Your task to perform on an android device: toggle javascript in the chrome app Image 0: 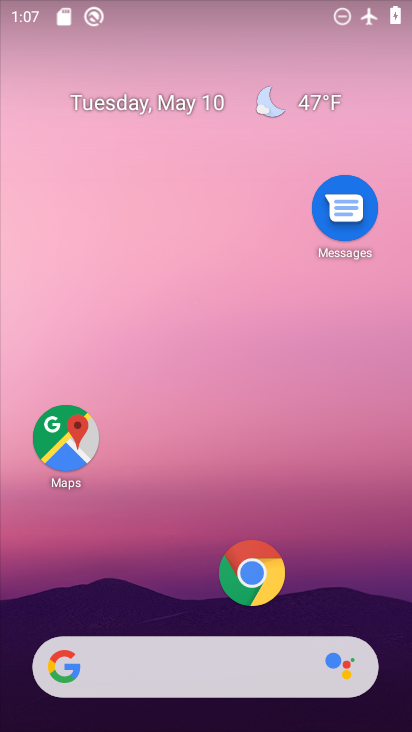
Step 0: drag from (176, 618) to (192, 294)
Your task to perform on an android device: toggle javascript in the chrome app Image 1: 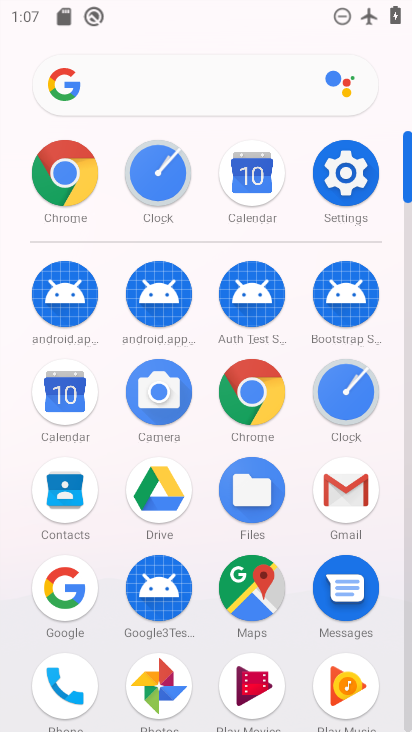
Step 1: click (257, 397)
Your task to perform on an android device: toggle javascript in the chrome app Image 2: 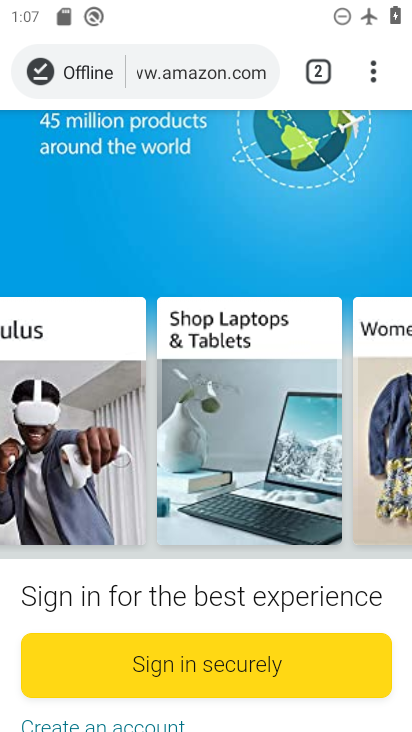
Step 2: drag from (200, 624) to (263, 256)
Your task to perform on an android device: toggle javascript in the chrome app Image 3: 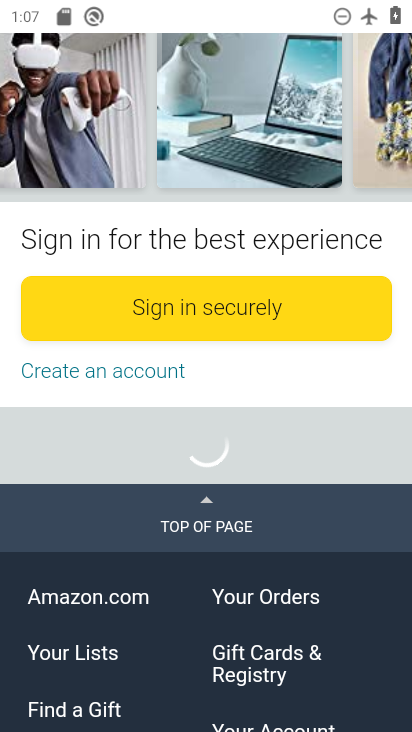
Step 3: drag from (210, 237) to (211, 730)
Your task to perform on an android device: toggle javascript in the chrome app Image 4: 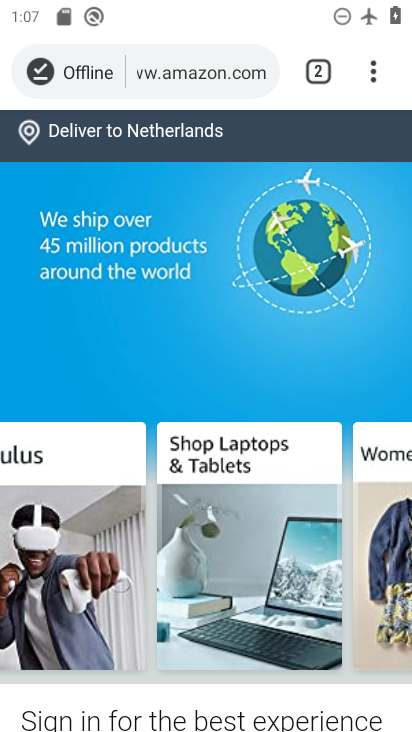
Step 4: drag from (369, 77) to (137, 560)
Your task to perform on an android device: toggle javascript in the chrome app Image 5: 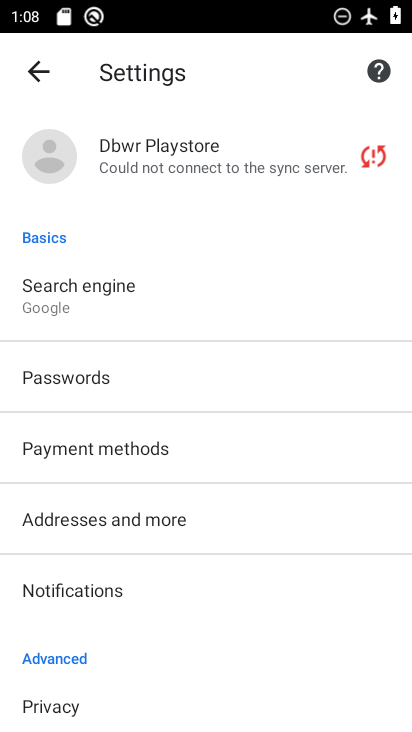
Step 5: drag from (173, 568) to (229, 287)
Your task to perform on an android device: toggle javascript in the chrome app Image 6: 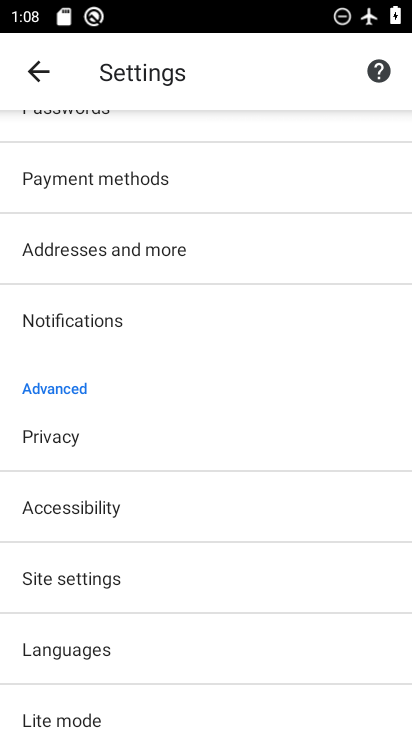
Step 6: drag from (156, 625) to (195, 360)
Your task to perform on an android device: toggle javascript in the chrome app Image 7: 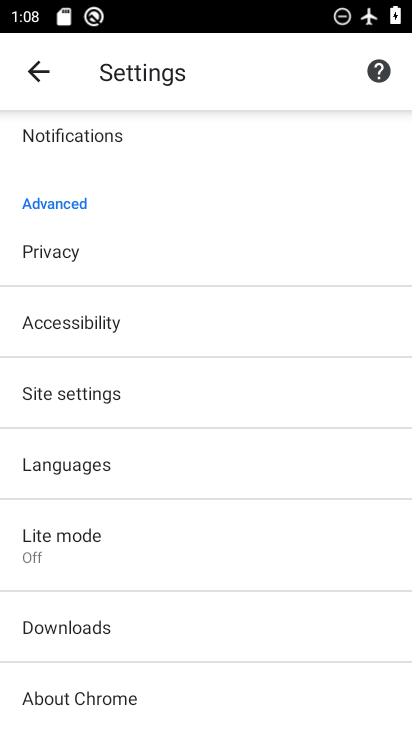
Step 7: drag from (204, 626) to (232, 279)
Your task to perform on an android device: toggle javascript in the chrome app Image 8: 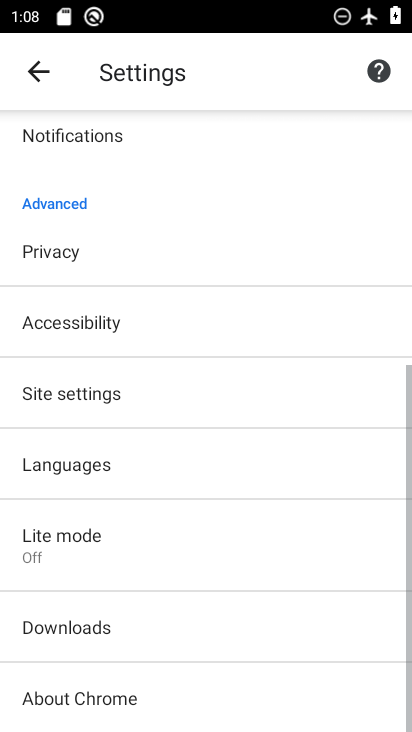
Step 8: click (128, 406)
Your task to perform on an android device: toggle javascript in the chrome app Image 9: 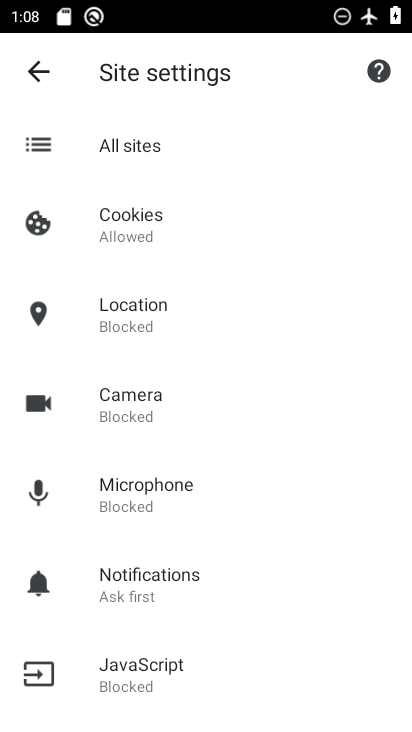
Step 9: drag from (233, 484) to (296, 157)
Your task to perform on an android device: toggle javascript in the chrome app Image 10: 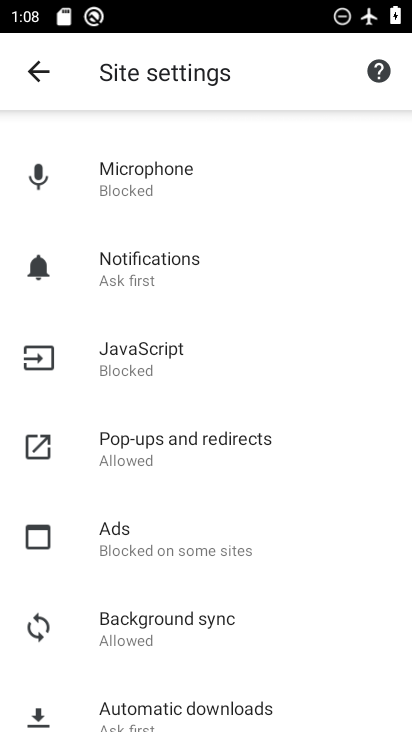
Step 10: click (152, 347)
Your task to perform on an android device: toggle javascript in the chrome app Image 11: 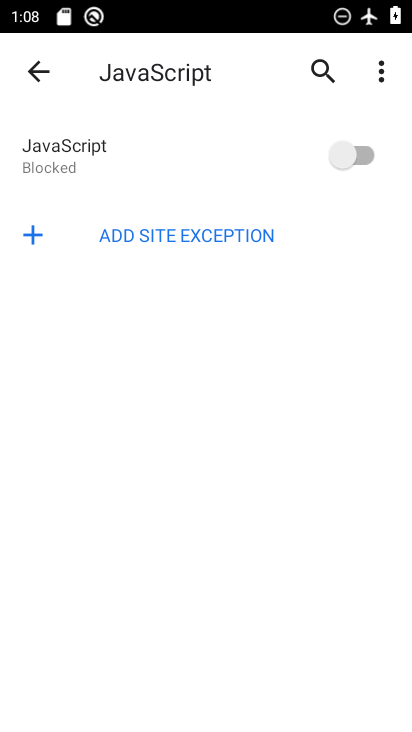
Step 11: click (326, 162)
Your task to perform on an android device: toggle javascript in the chrome app Image 12: 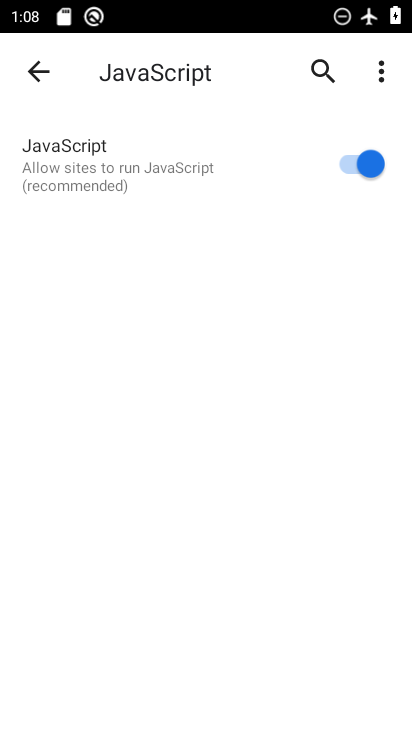
Step 12: task complete